Your task to perform on an android device: How big is the universe? Image 0: 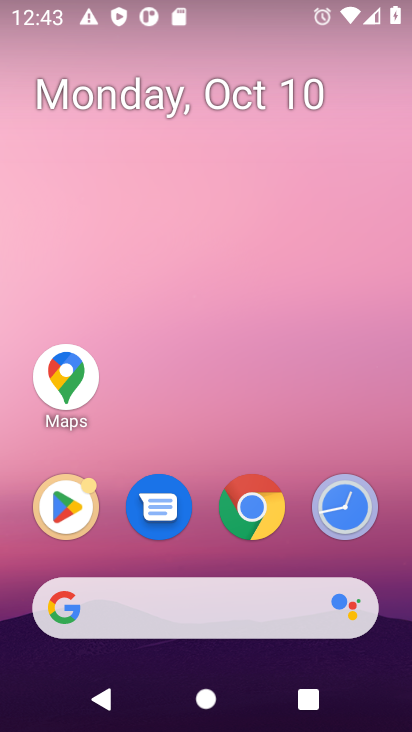
Step 0: click (224, 617)
Your task to perform on an android device: How big is the universe? Image 1: 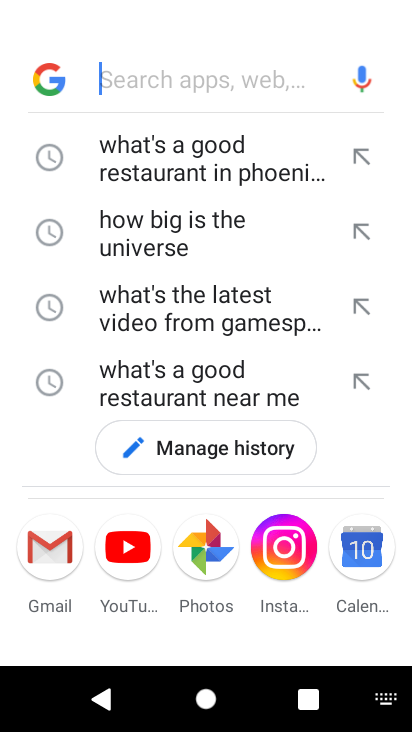
Step 1: type "How big is the universe?"
Your task to perform on an android device: How big is the universe? Image 2: 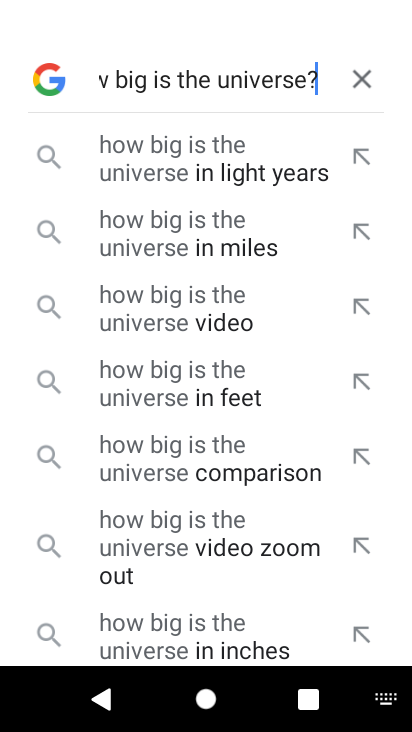
Step 2: press enter
Your task to perform on an android device: How big is the universe? Image 3: 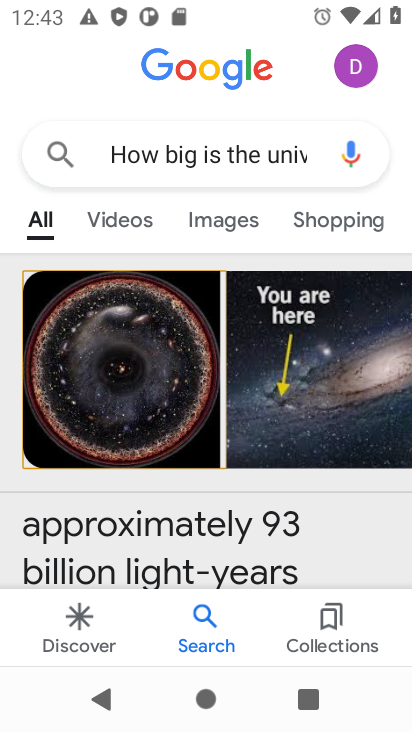
Step 3: task complete